Your task to perform on an android device: Open Youtube and go to "Your channel" Image 0: 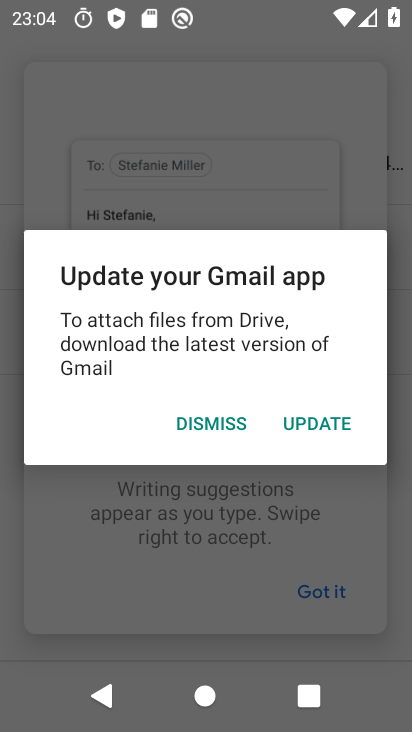
Step 0: press home button
Your task to perform on an android device: Open Youtube and go to "Your channel" Image 1: 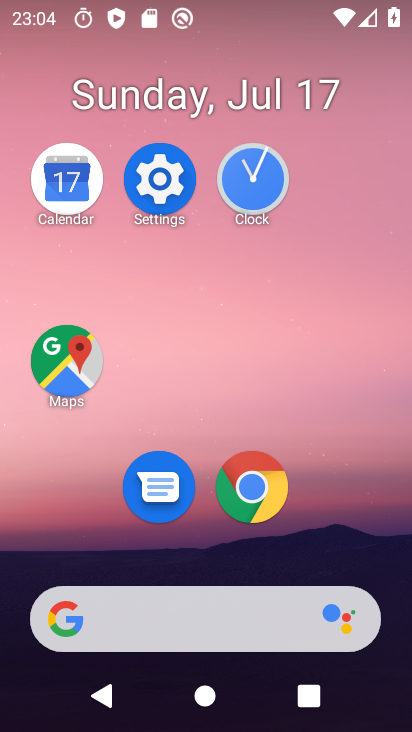
Step 1: drag from (310, 488) to (291, 116)
Your task to perform on an android device: Open Youtube and go to "Your channel" Image 2: 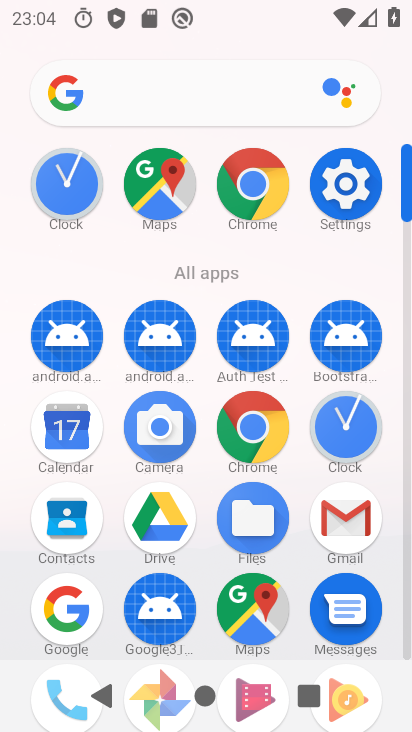
Step 2: drag from (257, 527) to (267, 217)
Your task to perform on an android device: Open Youtube and go to "Your channel" Image 3: 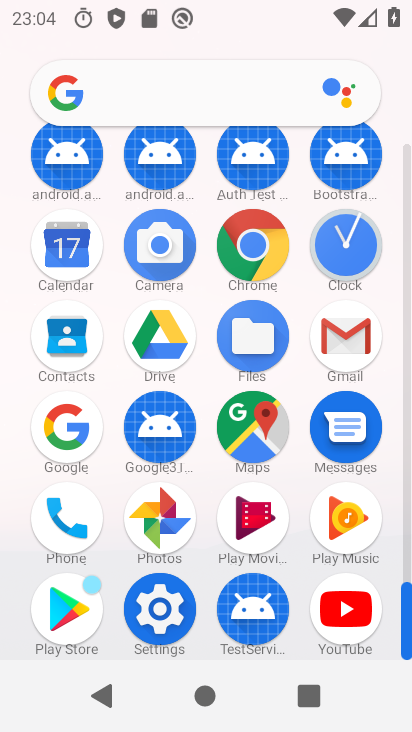
Step 3: click (345, 595)
Your task to perform on an android device: Open Youtube and go to "Your channel" Image 4: 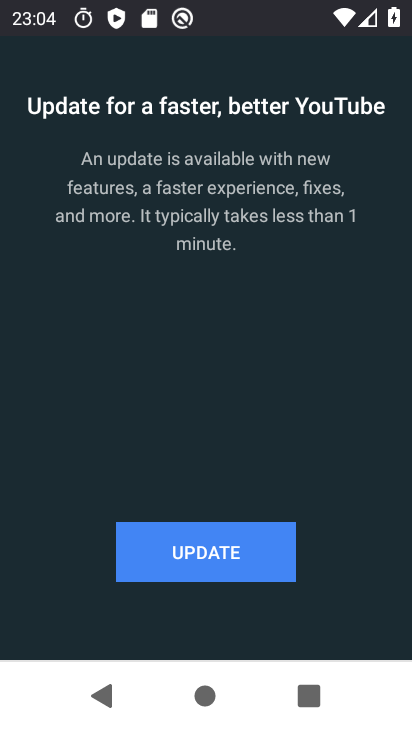
Step 4: click (202, 563)
Your task to perform on an android device: Open Youtube and go to "Your channel" Image 5: 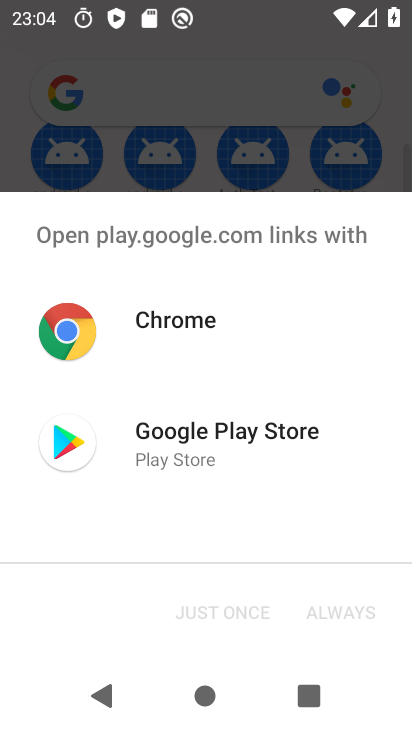
Step 5: click (236, 428)
Your task to perform on an android device: Open Youtube and go to "Your channel" Image 6: 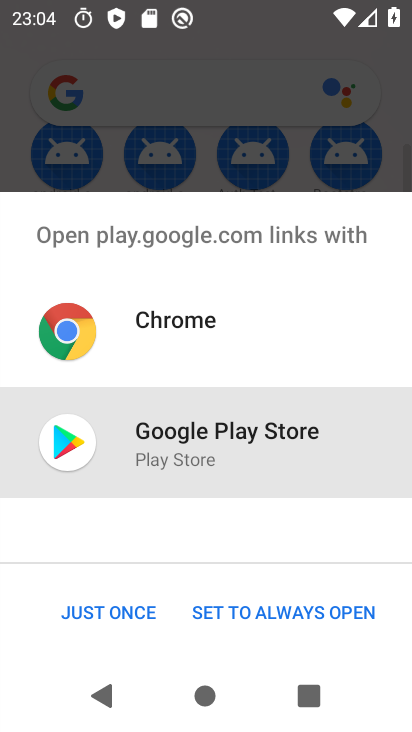
Step 6: click (236, 428)
Your task to perform on an android device: Open Youtube and go to "Your channel" Image 7: 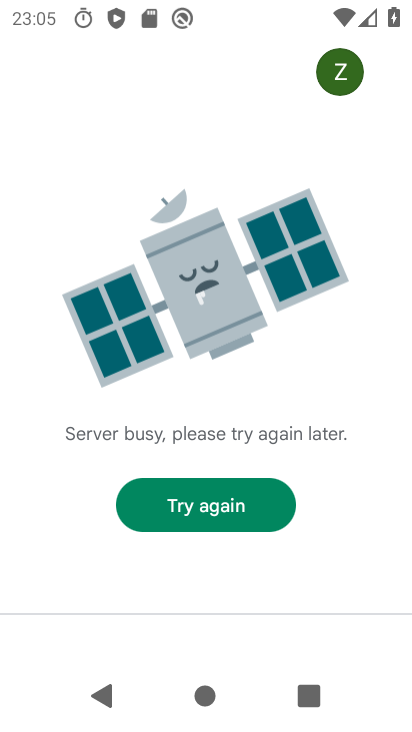
Step 7: task complete